Your task to perform on an android device: snooze an email in the gmail app Image 0: 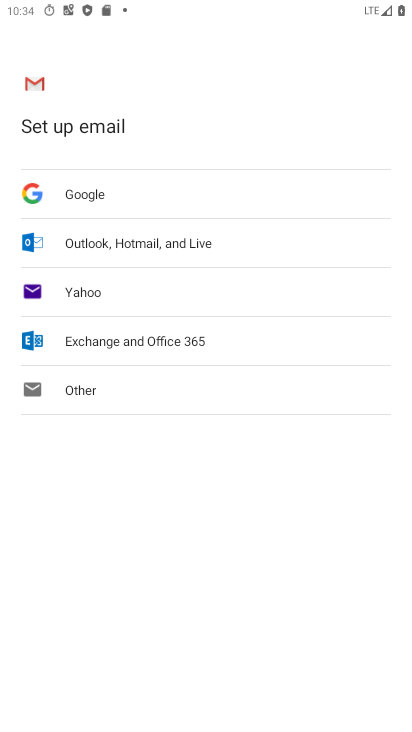
Step 0: press home button
Your task to perform on an android device: snooze an email in the gmail app Image 1: 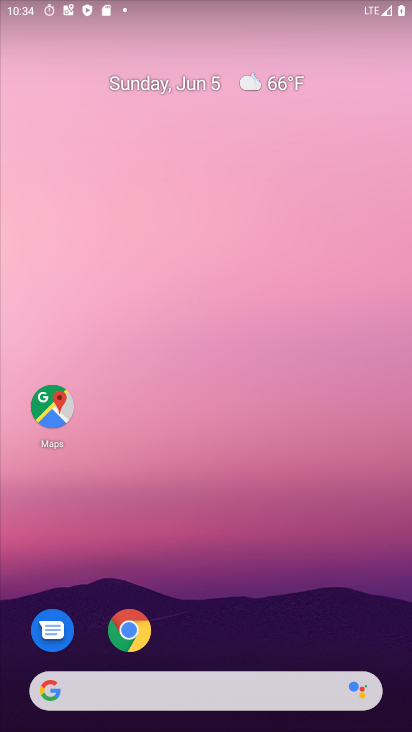
Step 1: drag from (210, 727) to (213, 24)
Your task to perform on an android device: snooze an email in the gmail app Image 2: 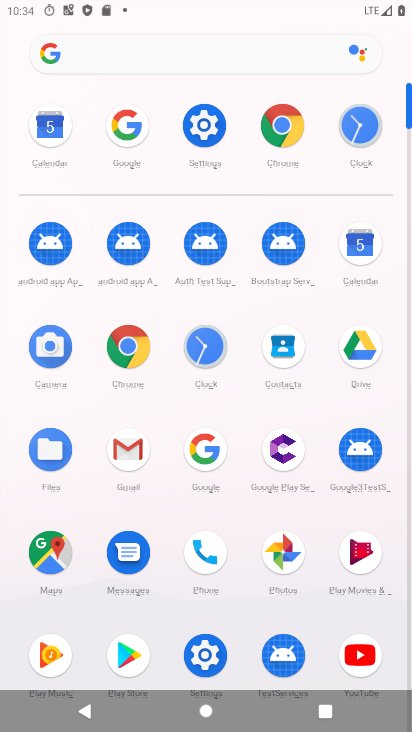
Step 2: click (131, 454)
Your task to perform on an android device: snooze an email in the gmail app Image 3: 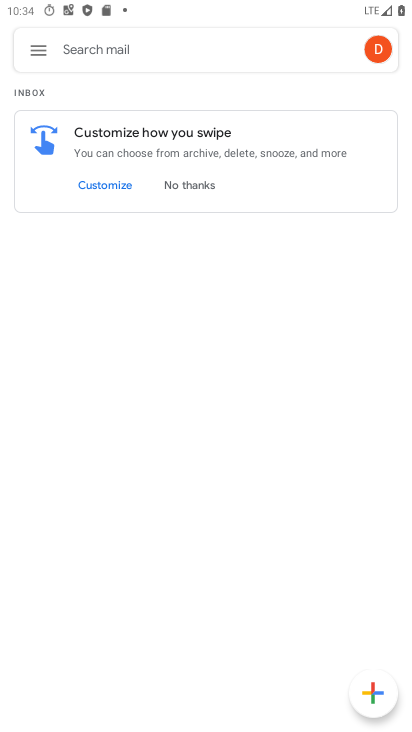
Step 3: click (33, 48)
Your task to perform on an android device: snooze an email in the gmail app Image 4: 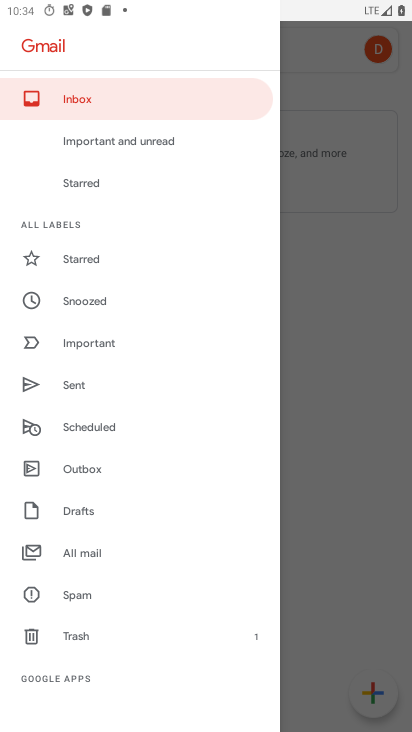
Step 4: click (72, 97)
Your task to perform on an android device: snooze an email in the gmail app Image 5: 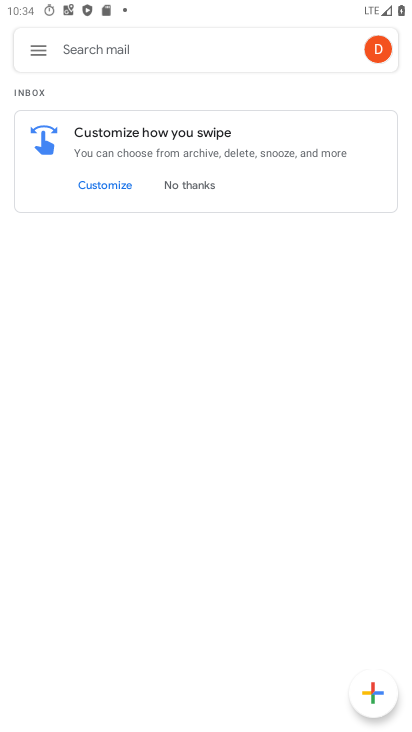
Step 5: task complete